Your task to perform on an android device: toggle notification dots Image 0: 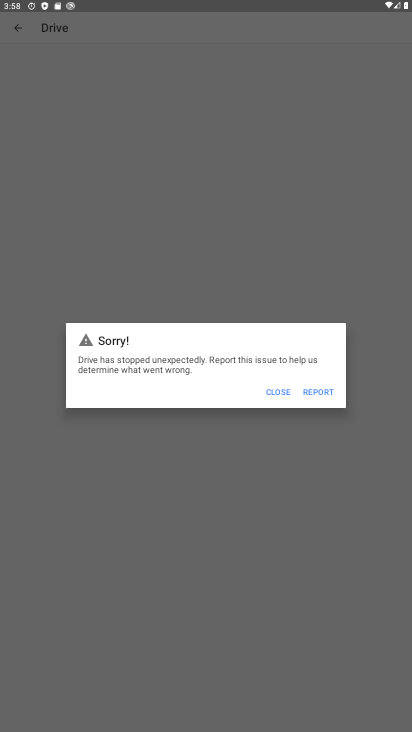
Step 0: press home button
Your task to perform on an android device: toggle notification dots Image 1: 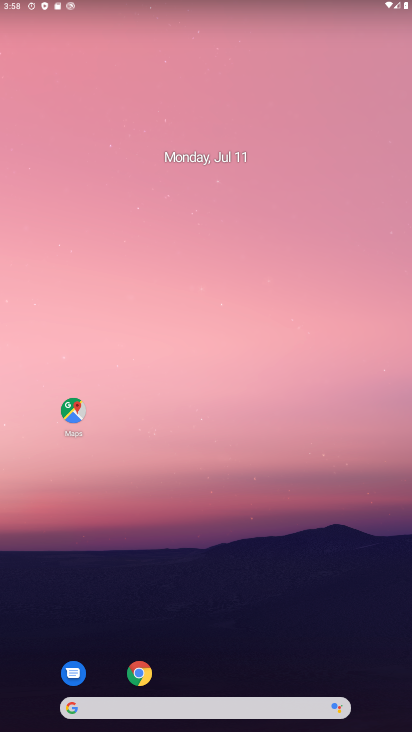
Step 1: click (260, 12)
Your task to perform on an android device: toggle notification dots Image 2: 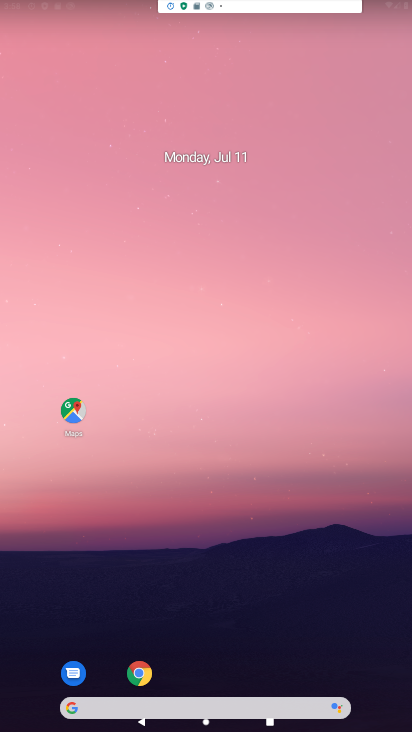
Step 2: drag from (260, 12) to (233, 547)
Your task to perform on an android device: toggle notification dots Image 3: 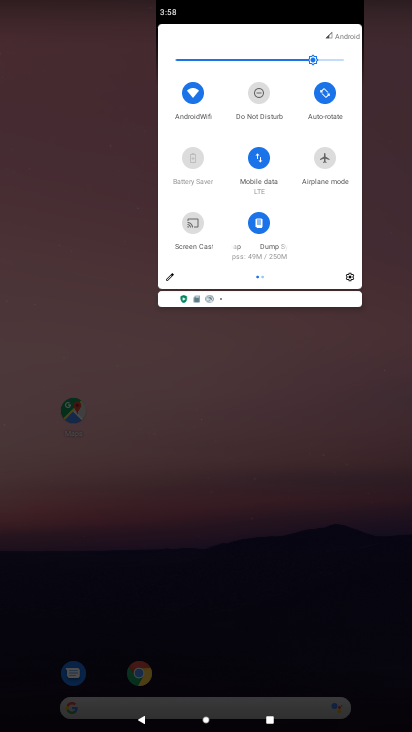
Step 3: click (289, 405)
Your task to perform on an android device: toggle notification dots Image 4: 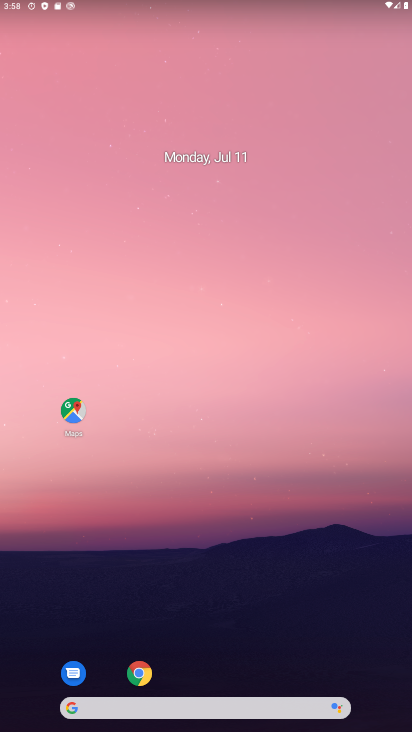
Step 4: drag from (246, 625) to (336, 85)
Your task to perform on an android device: toggle notification dots Image 5: 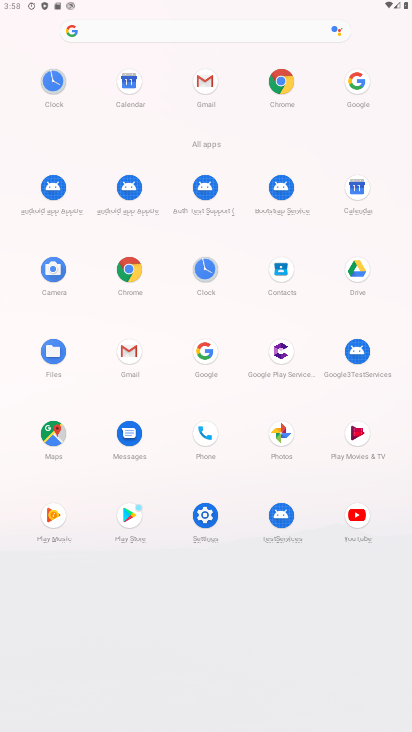
Step 5: click (204, 517)
Your task to perform on an android device: toggle notification dots Image 6: 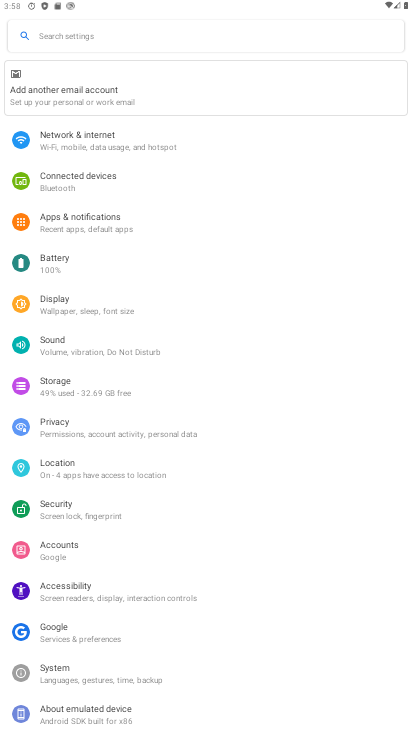
Step 6: drag from (159, 504) to (187, 280)
Your task to perform on an android device: toggle notification dots Image 7: 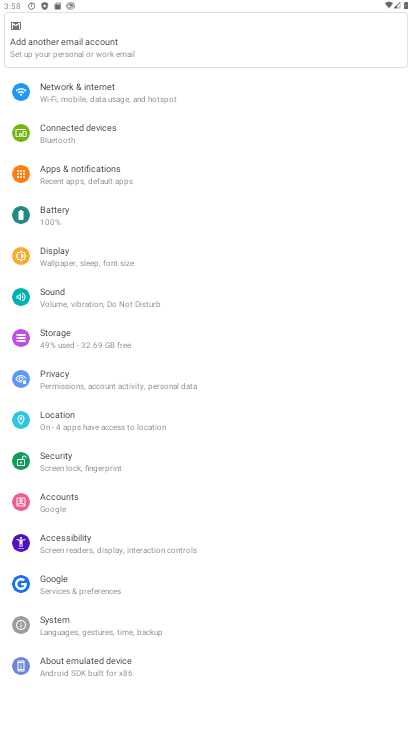
Step 7: click (95, 171)
Your task to perform on an android device: toggle notification dots Image 8: 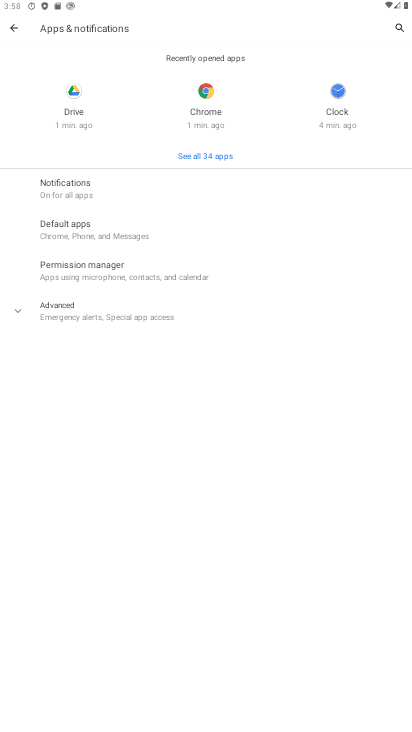
Step 8: click (67, 307)
Your task to perform on an android device: toggle notification dots Image 9: 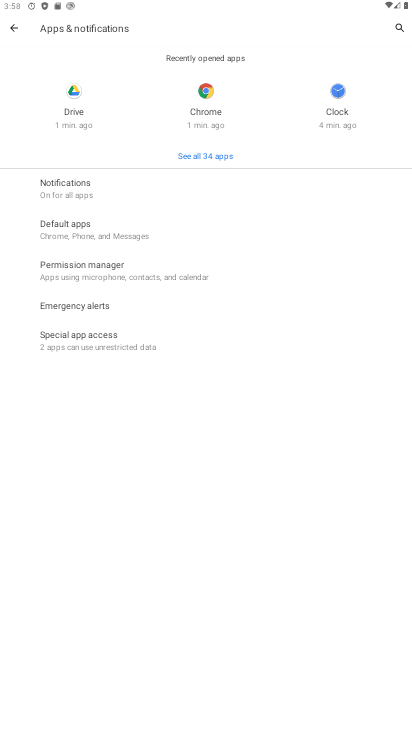
Step 9: click (49, 189)
Your task to perform on an android device: toggle notification dots Image 10: 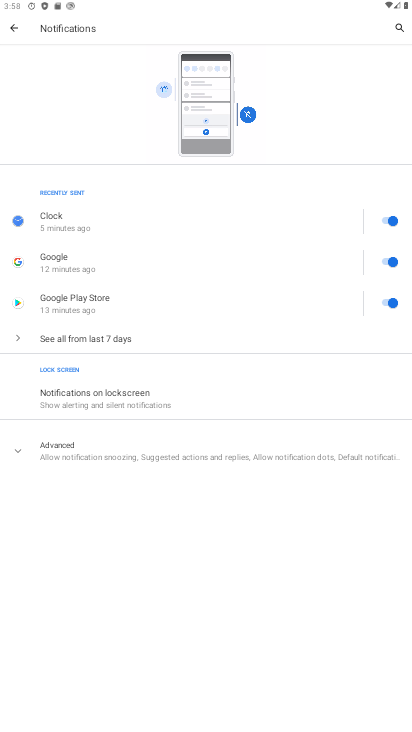
Step 10: click (99, 453)
Your task to perform on an android device: toggle notification dots Image 11: 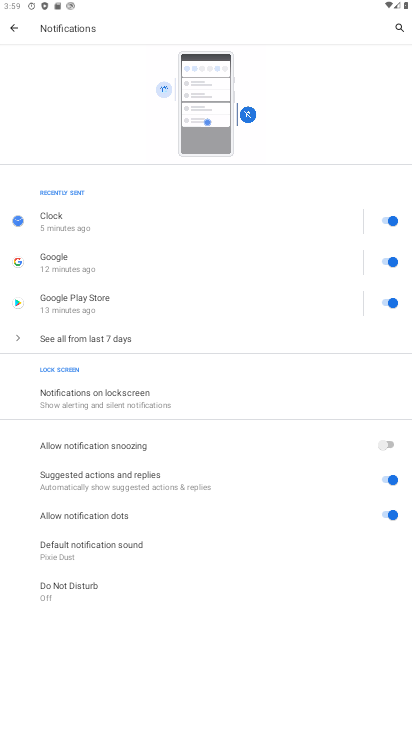
Step 11: click (393, 506)
Your task to perform on an android device: toggle notification dots Image 12: 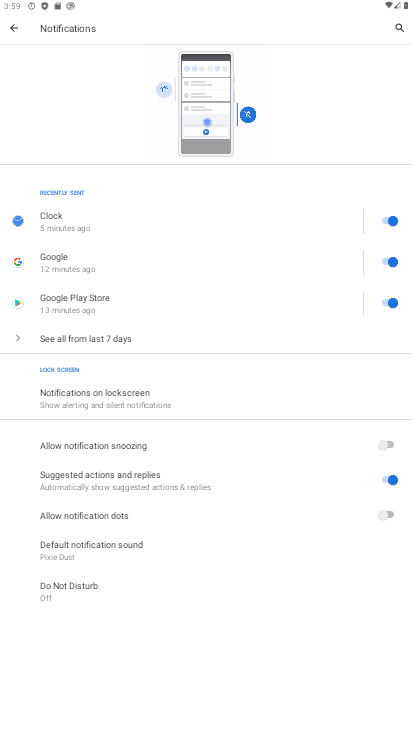
Step 12: task complete